Your task to perform on an android device: Open Chrome and go to the settings page Image 0: 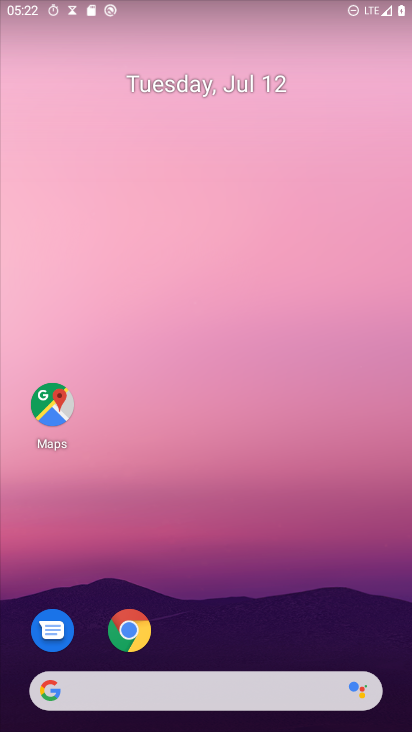
Step 0: drag from (342, 625) to (391, 39)
Your task to perform on an android device: Open Chrome and go to the settings page Image 1: 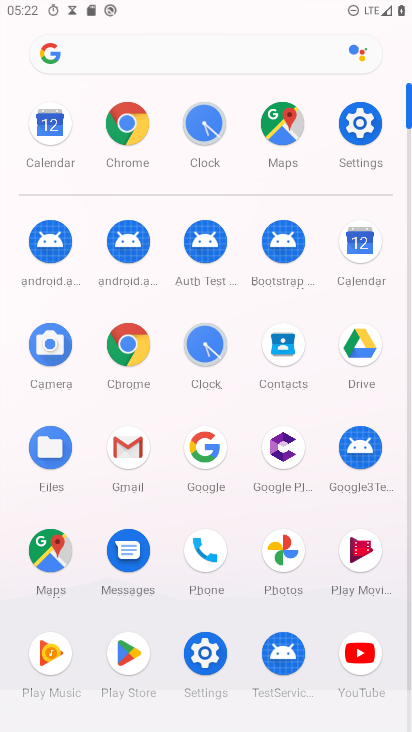
Step 1: click (133, 335)
Your task to perform on an android device: Open Chrome and go to the settings page Image 2: 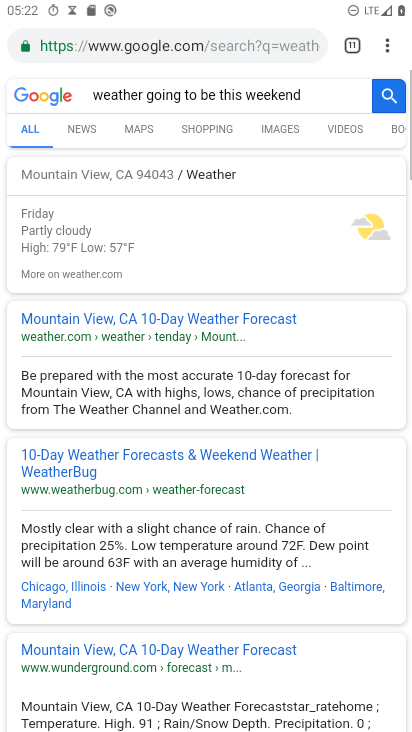
Step 2: task complete